Your task to perform on an android device: Go to Google Image 0: 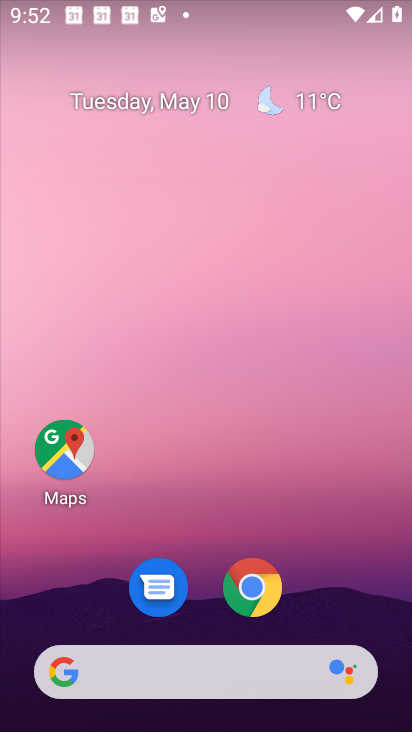
Step 0: drag from (384, 576) to (341, 123)
Your task to perform on an android device: Go to Google Image 1: 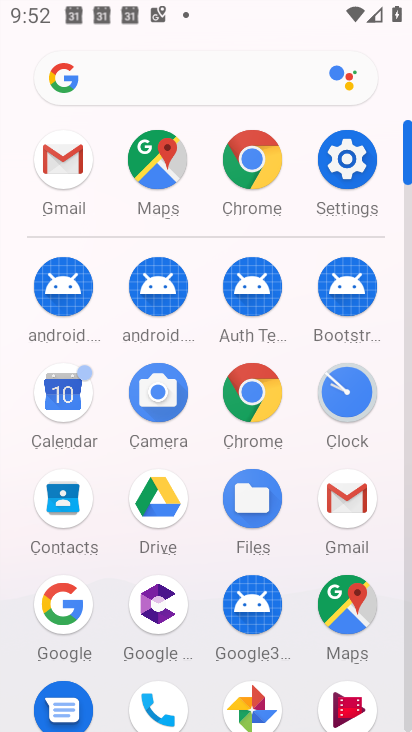
Step 1: click (70, 596)
Your task to perform on an android device: Go to Google Image 2: 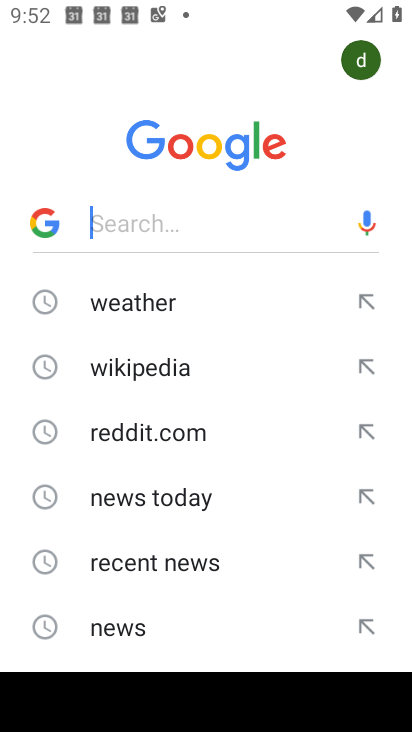
Step 2: task complete